Your task to perform on an android device: find photos in the google photos app Image 0: 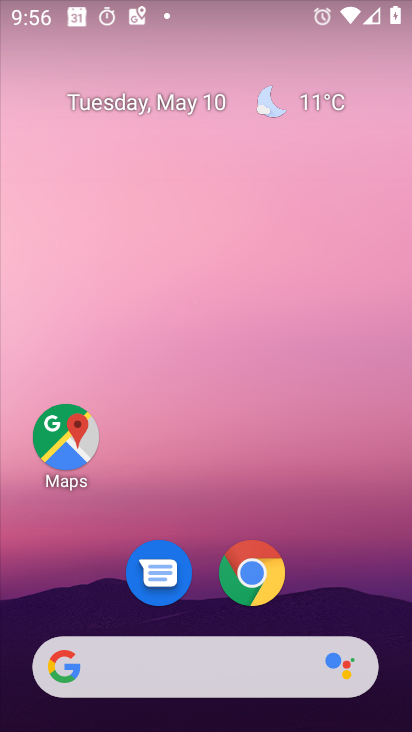
Step 0: drag from (347, 618) to (395, 22)
Your task to perform on an android device: find photos in the google photos app Image 1: 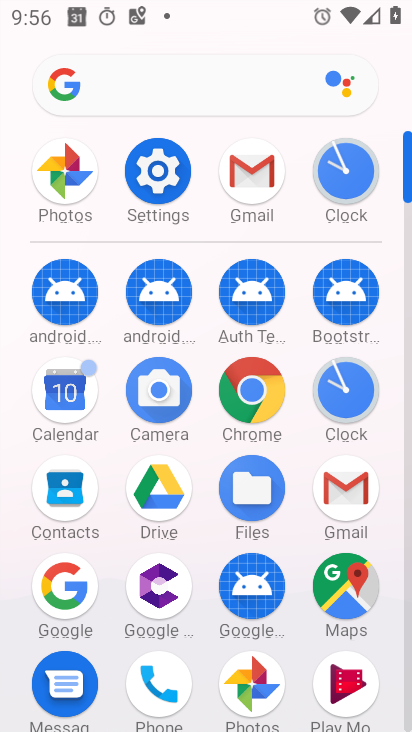
Step 1: click (66, 180)
Your task to perform on an android device: find photos in the google photos app Image 2: 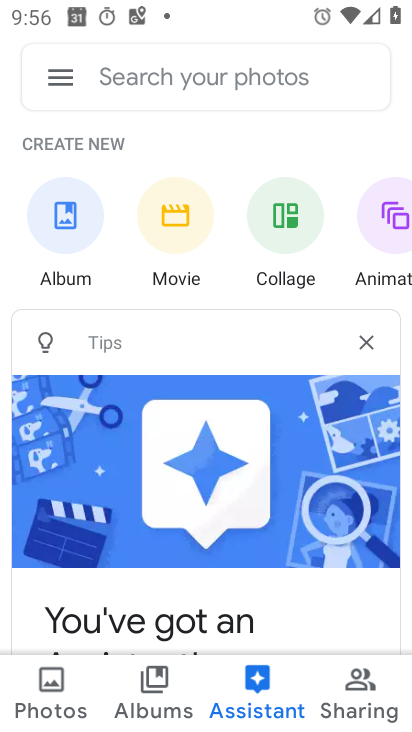
Step 2: click (33, 697)
Your task to perform on an android device: find photos in the google photos app Image 3: 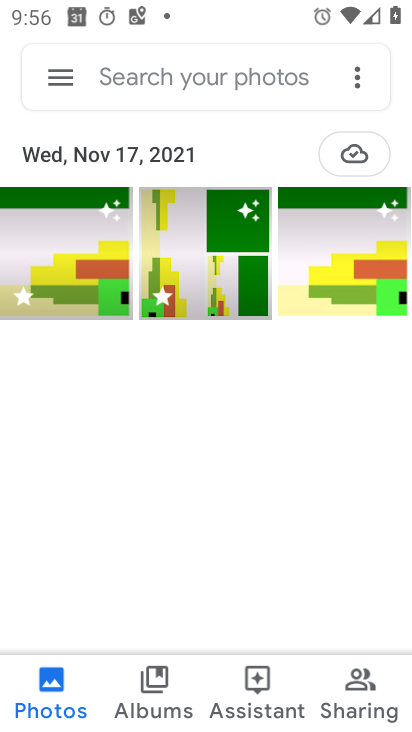
Step 3: task complete